Your task to perform on an android device: Check the news Image 0: 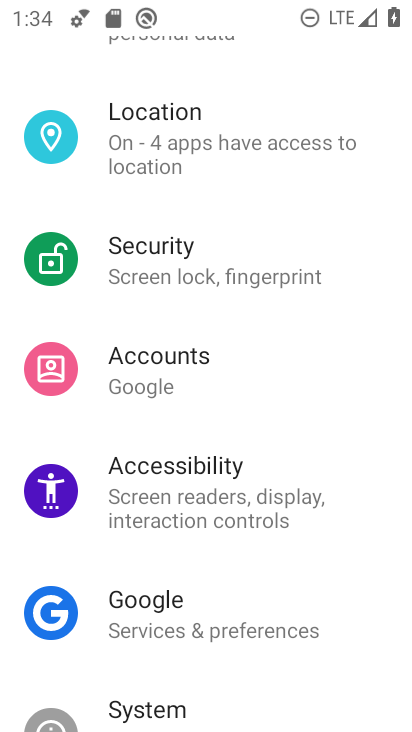
Step 0: press home button
Your task to perform on an android device: Check the news Image 1: 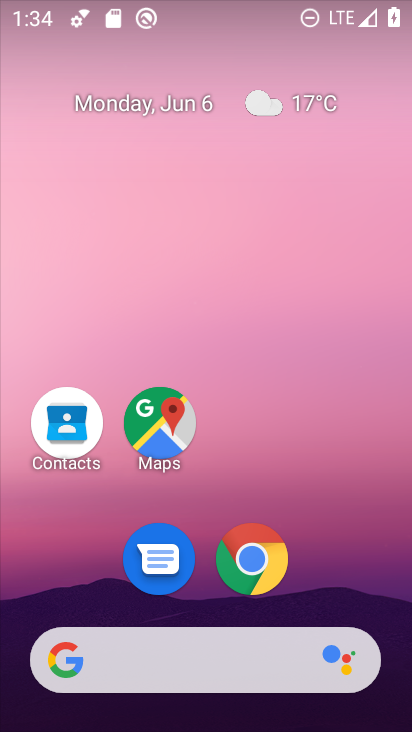
Step 1: drag from (297, 535) to (319, 21)
Your task to perform on an android device: Check the news Image 2: 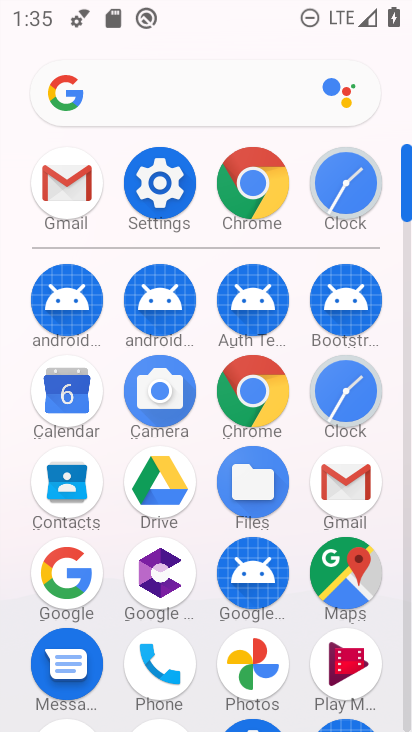
Step 2: click (75, 572)
Your task to perform on an android device: Check the news Image 3: 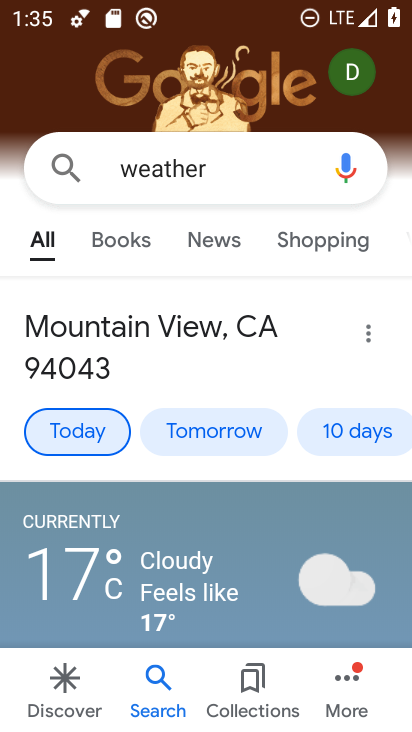
Step 3: click (240, 175)
Your task to perform on an android device: Check the news Image 4: 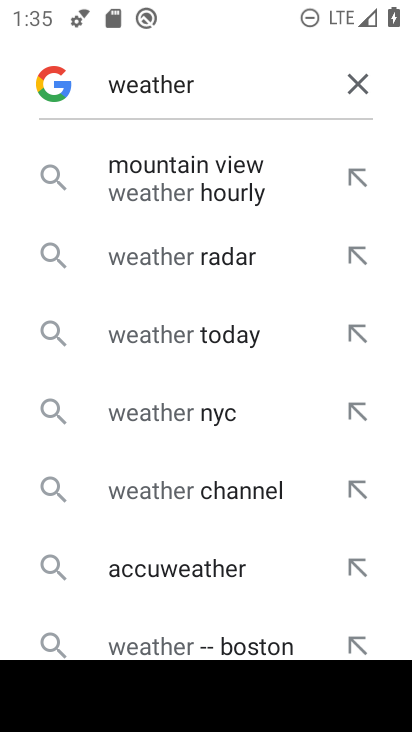
Step 4: click (355, 94)
Your task to perform on an android device: Check the news Image 5: 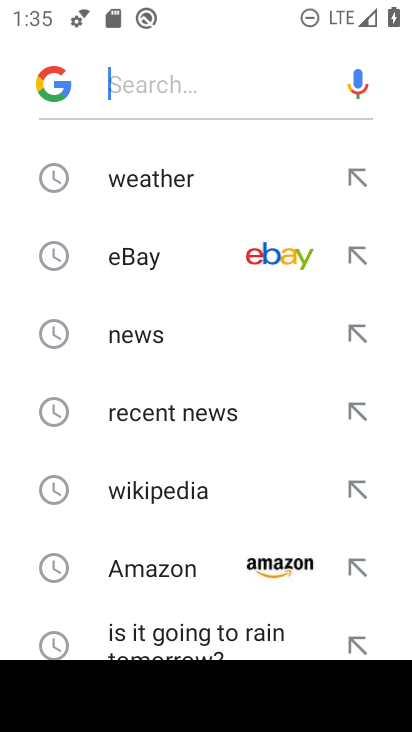
Step 5: click (199, 349)
Your task to perform on an android device: Check the news Image 6: 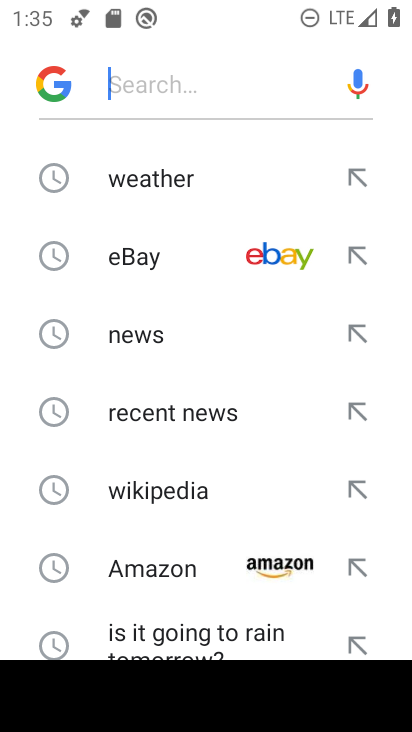
Step 6: click (161, 327)
Your task to perform on an android device: Check the news Image 7: 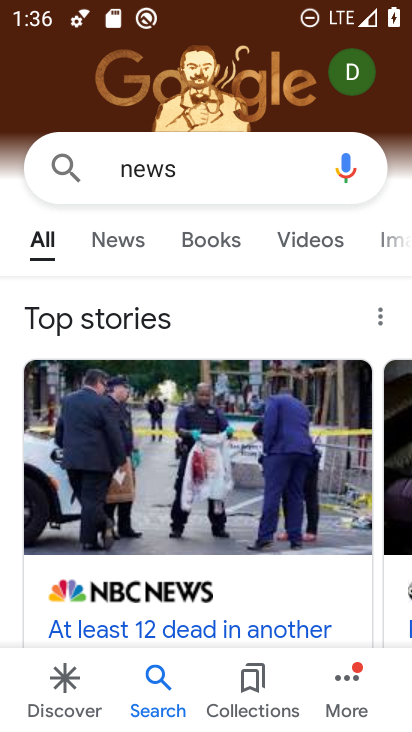
Step 7: task complete